Your task to perform on an android device: move an email to a new category in the gmail app Image 0: 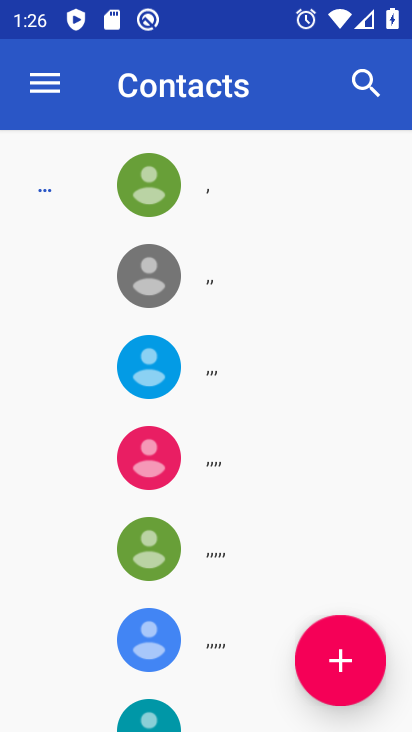
Step 0: press home button
Your task to perform on an android device: move an email to a new category in the gmail app Image 1: 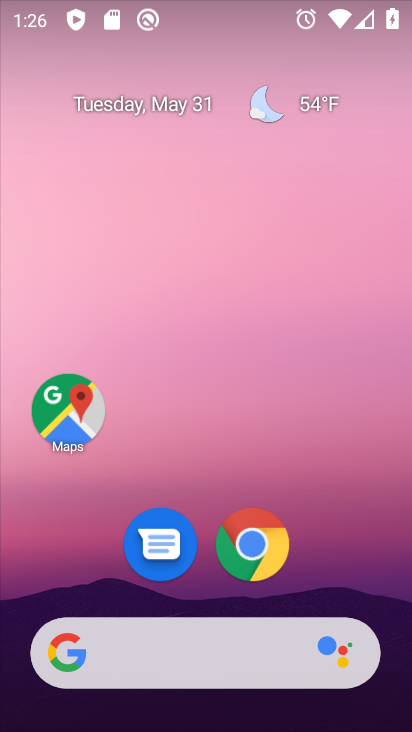
Step 1: drag from (314, 588) to (286, 83)
Your task to perform on an android device: move an email to a new category in the gmail app Image 2: 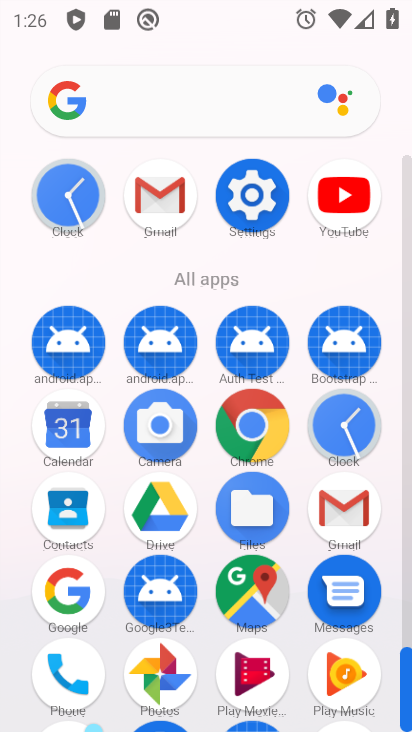
Step 2: click (160, 197)
Your task to perform on an android device: move an email to a new category in the gmail app Image 3: 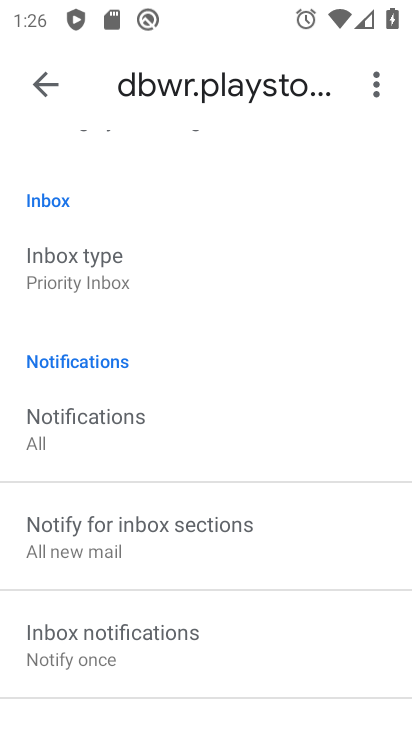
Step 3: click (52, 86)
Your task to perform on an android device: move an email to a new category in the gmail app Image 4: 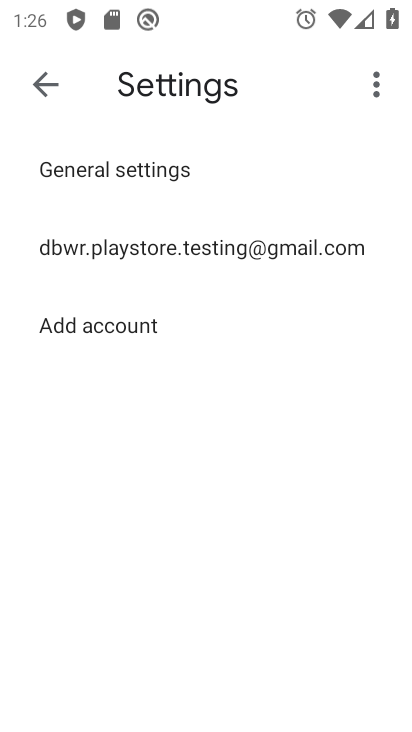
Step 4: click (52, 69)
Your task to perform on an android device: move an email to a new category in the gmail app Image 5: 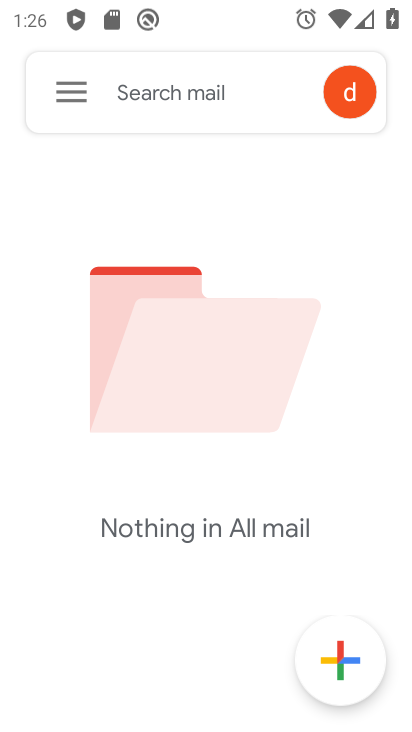
Step 5: click (75, 94)
Your task to perform on an android device: move an email to a new category in the gmail app Image 6: 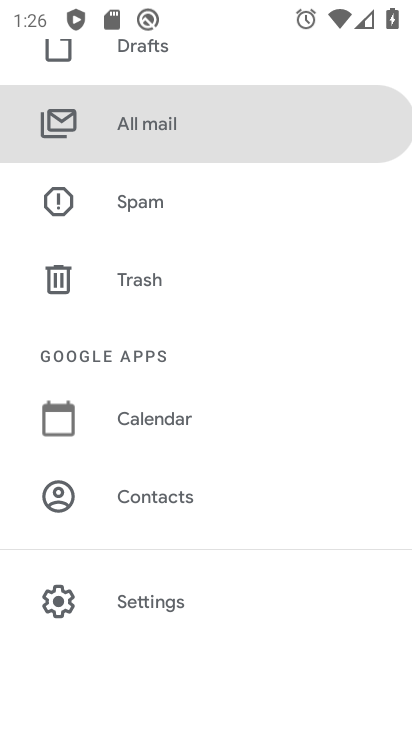
Step 6: click (143, 147)
Your task to perform on an android device: move an email to a new category in the gmail app Image 7: 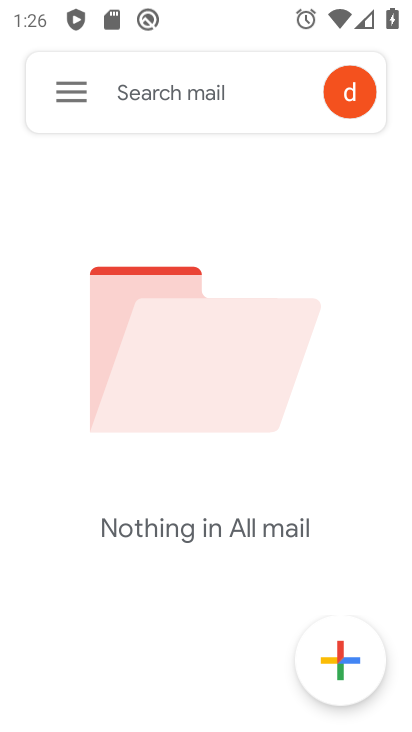
Step 7: task complete